Your task to perform on an android device: open app "PUBG MOBILE" (install if not already installed) Image 0: 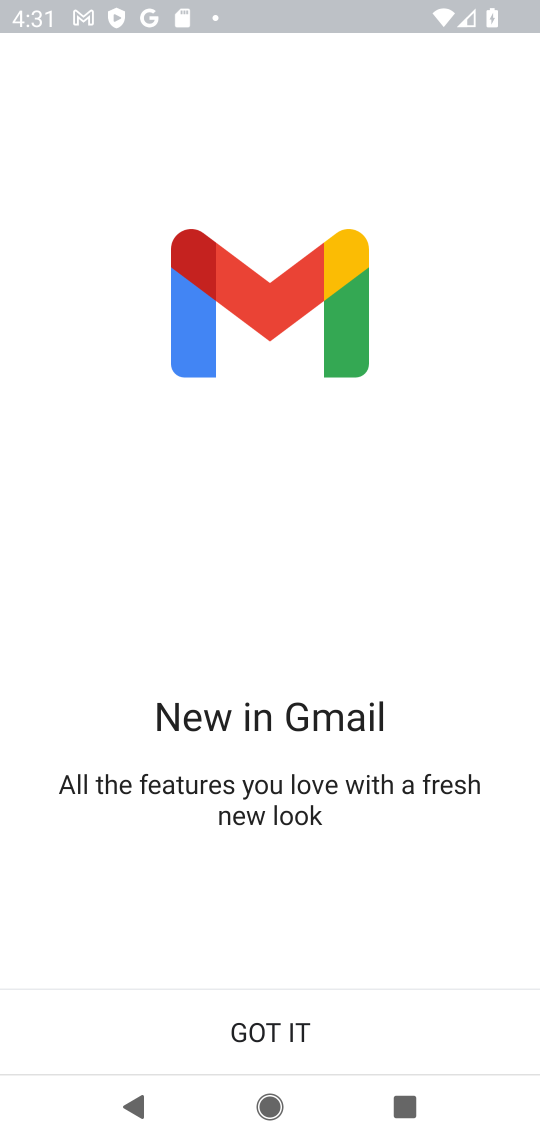
Step 0: press home button
Your task to perform on an android device: open app "PUBG MOBILE" (install if not already installed) Image 1: 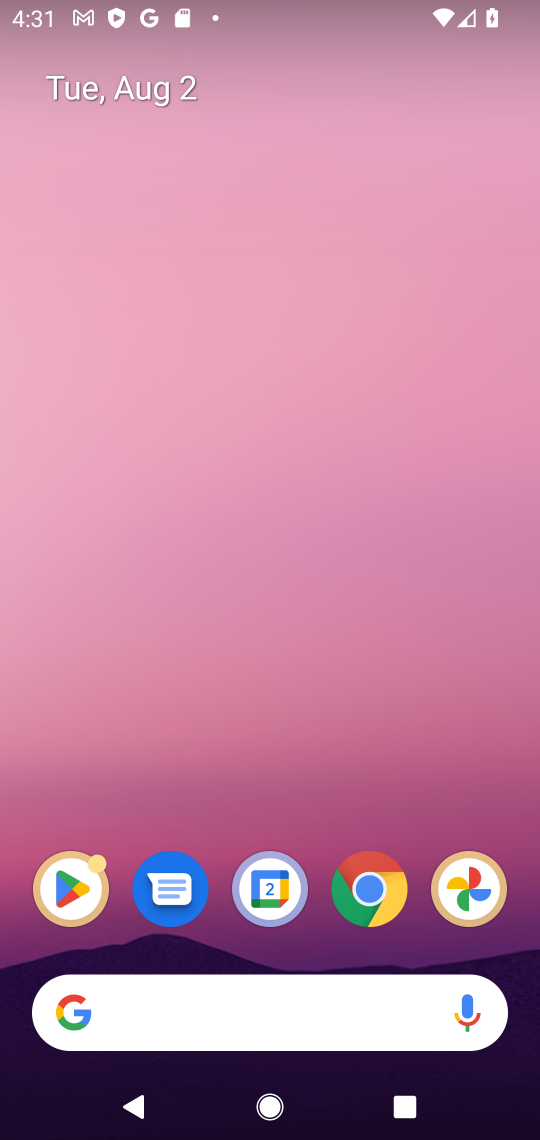
Step 1: click (71, 873)
Your task to perform on an android device: open app "PUBG MOBILE" (install if not already installed) Image 2: 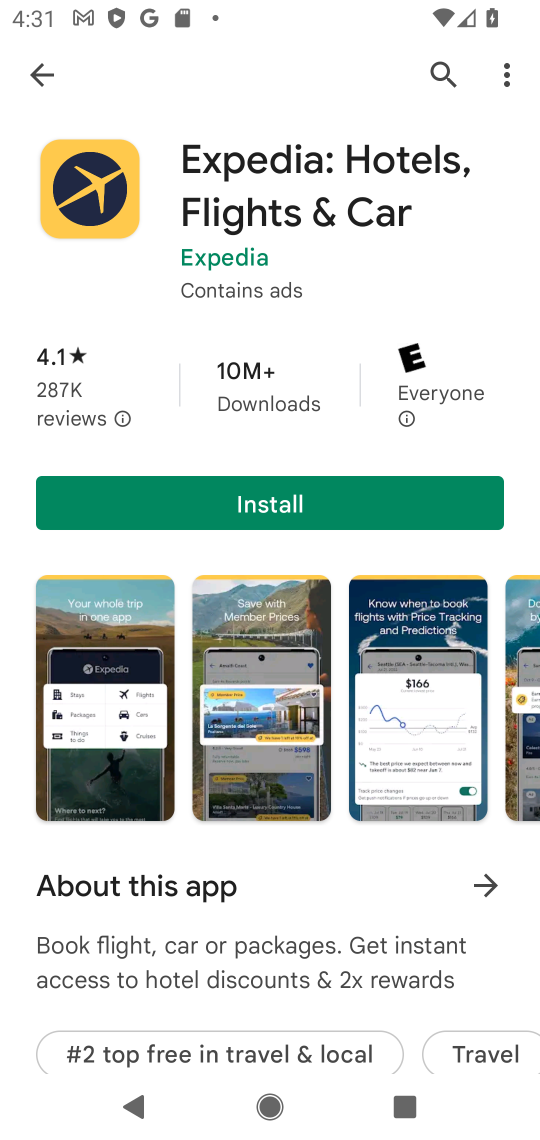
Step 2: click (442, 77)
Your task to perform on an android device: open app "PUBG MOBILE" (install if not already installed) Image 3: 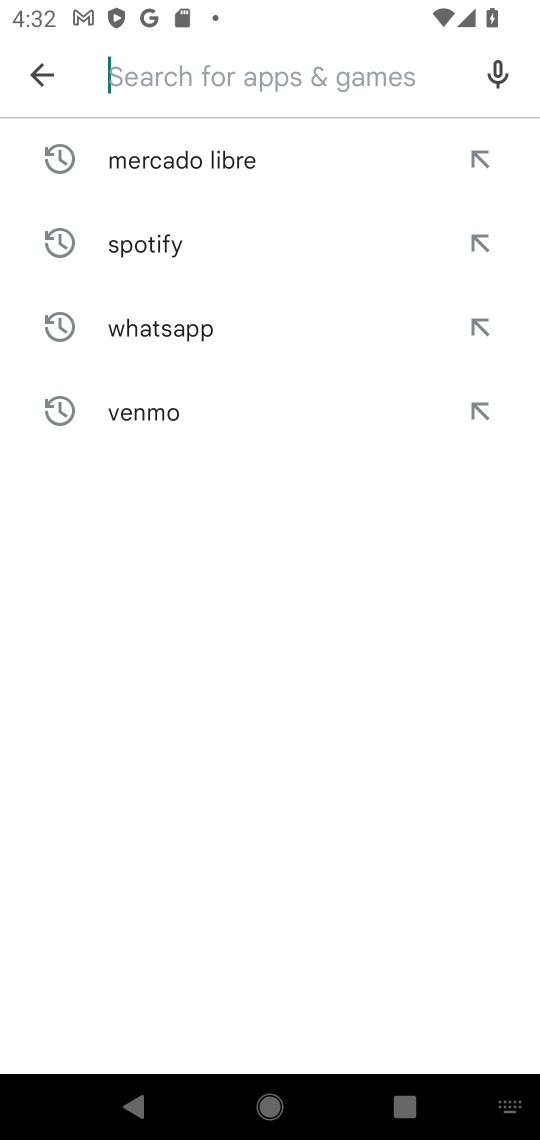
Step 3: type "pubg mobile"
Your task to perform on an android device: open app "PUBG MOBILE" (install if not already installed) Image 4: 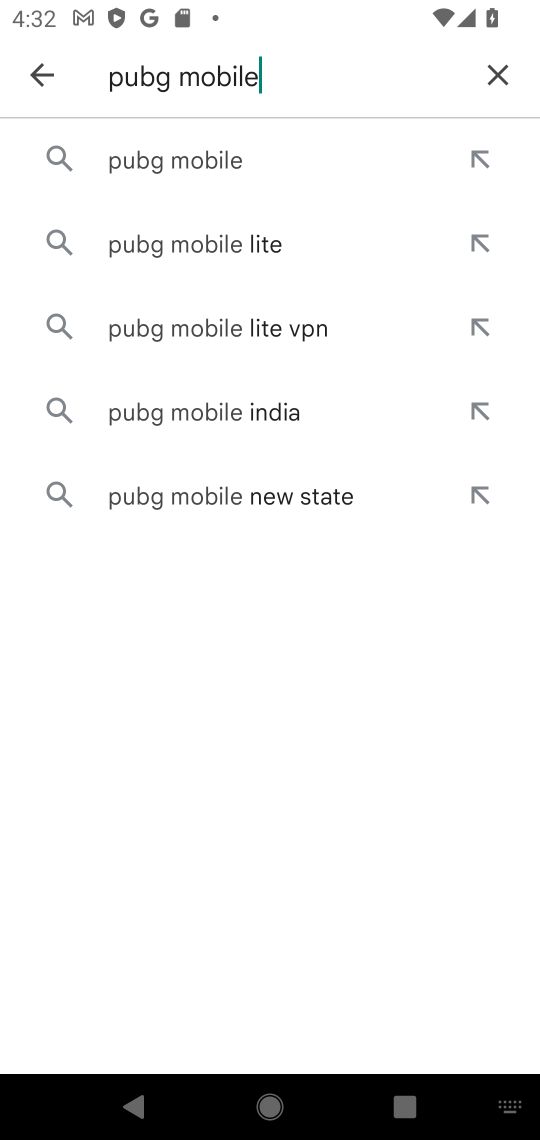
Step 4: click (183, 152)
Your task to perform on an android device: open app "PUBG MOBILE" (install if not already installed) Image 5: 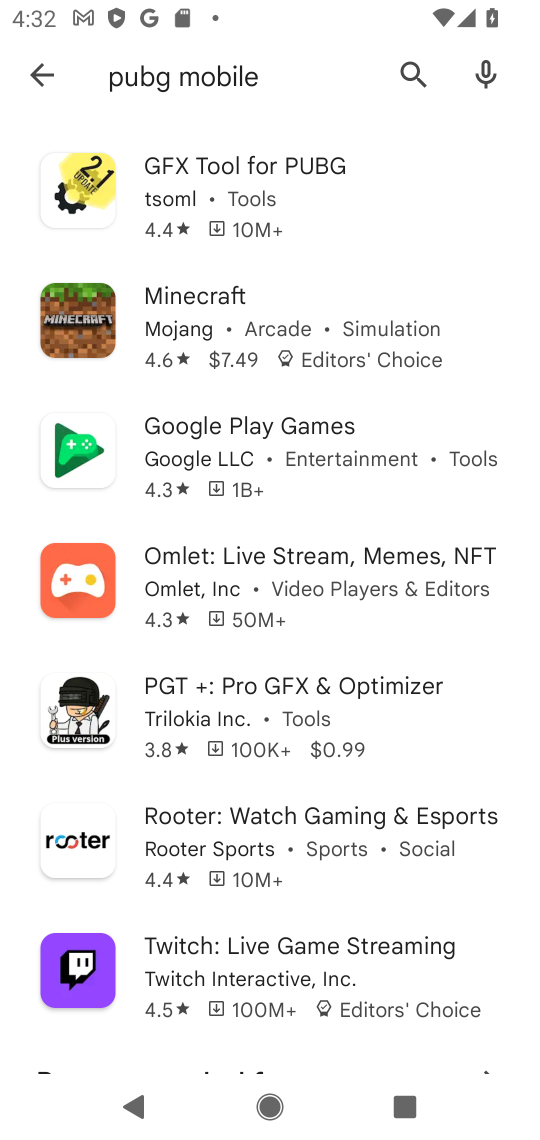
Step 5: task complete